Your task to perform on an android device: Open ESPN.com Image 0: 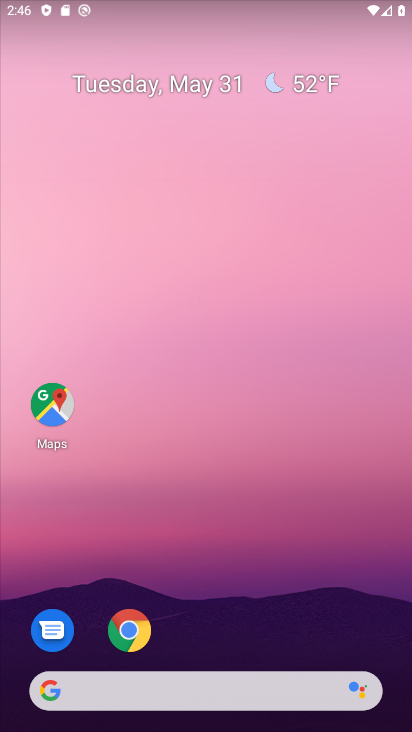
Step 0: click (121, 625)
Your task to perform on an android device: Open ESPN.com Image 1: 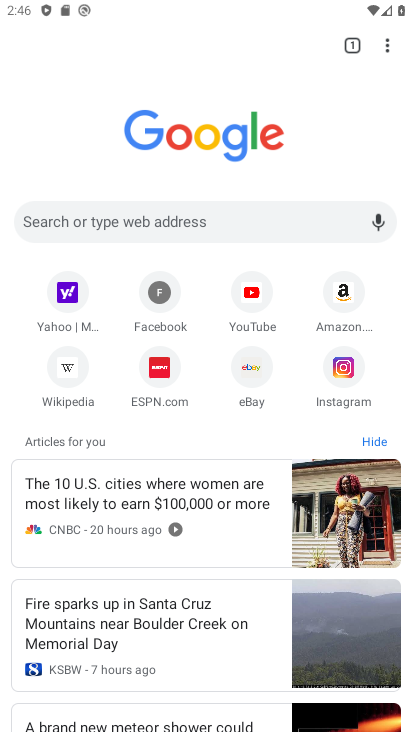
Step 1: click (108, 216)
Your task to perform on an android device: Open ESPN.com Image 2: 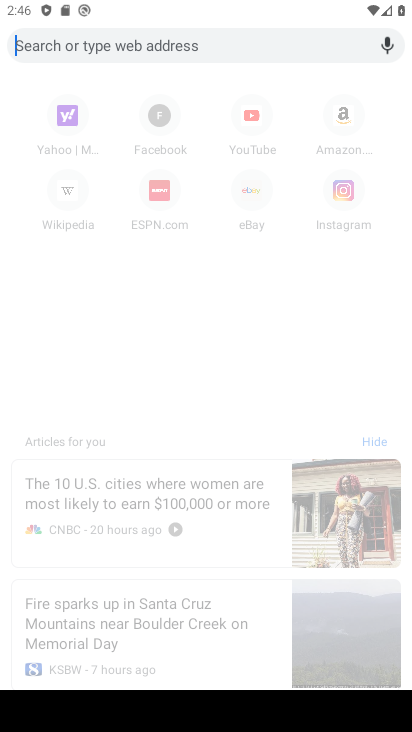
Step 2: type "ESPN.com"
Your task to perform on an android device: Open ESPN.com Image 3: 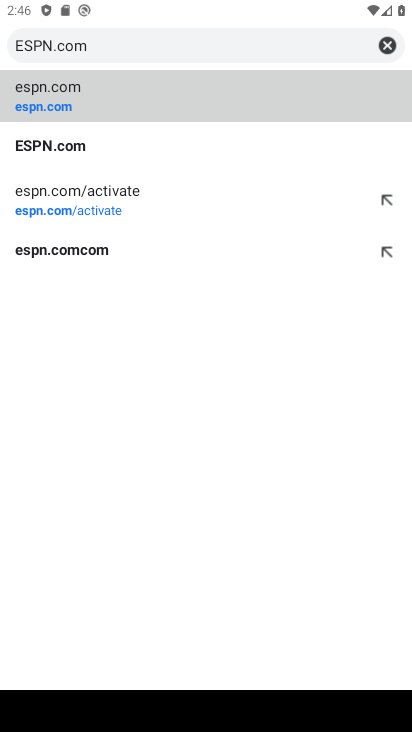
Step 3: click (39, 101)
Your task to perform on an android device: Open ESPN.com Image 4: 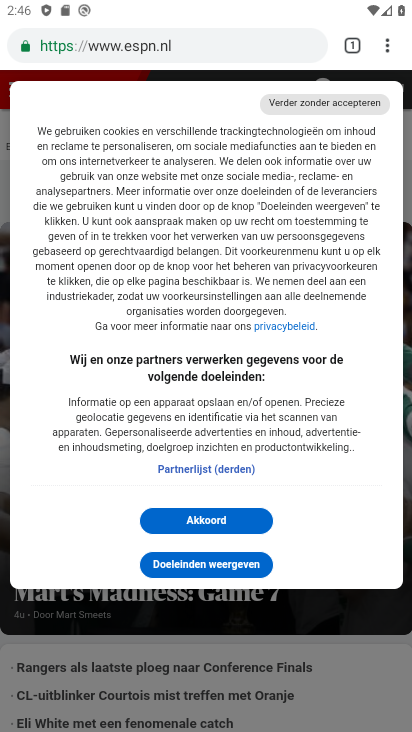
Step 4: task complete